Your task to perform on an android device: See recent photos Image 0: 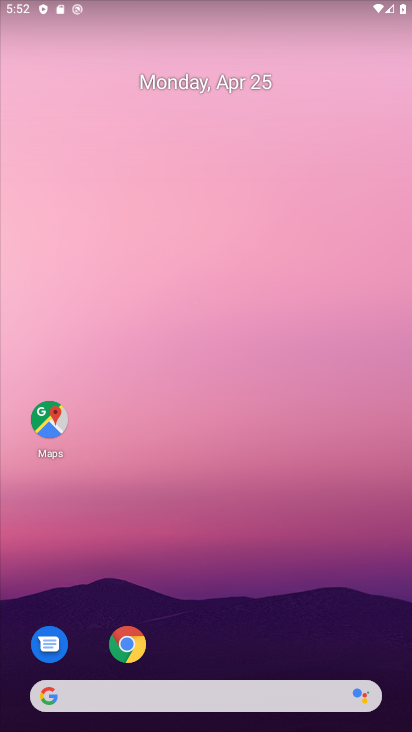
Step 0: drag from (295, 627) to (290, 86)
Your task to perform on an android device: See recent photos Image 1: 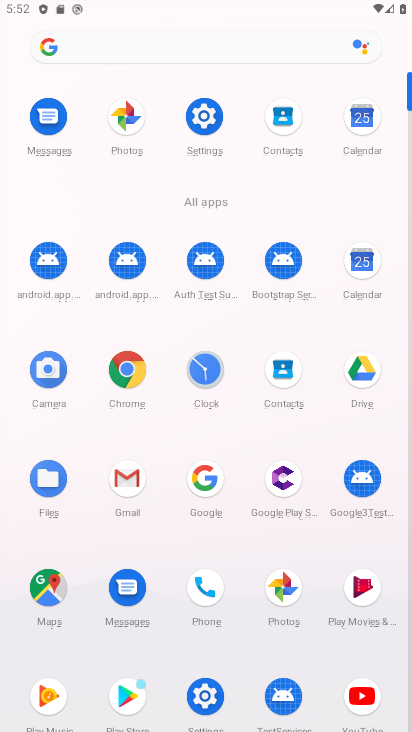
Step 1: click (286, 591)
Your task to perform on an android device: See recent photos Image 2: 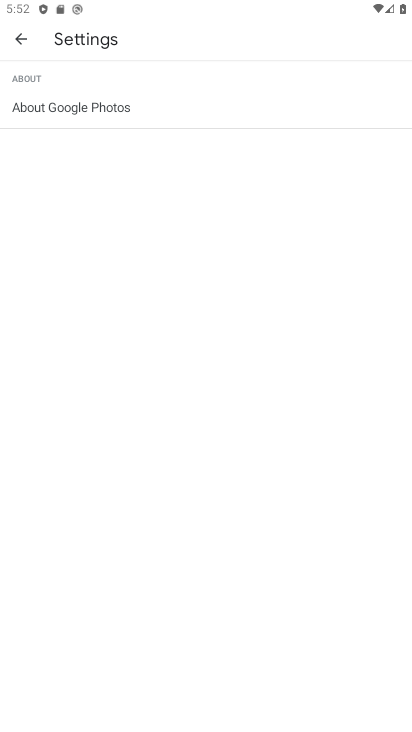
Step 2: click (23, 34)
Your task to perform on an android device: See recent photos Image 3: 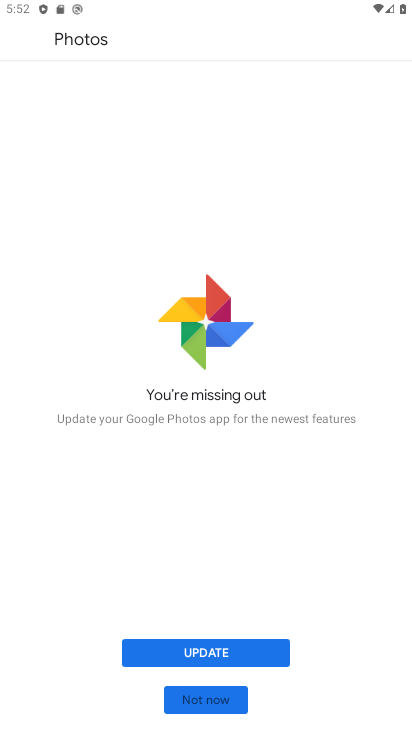
Step 3: click (219, 652)
Your task to perform on an android device: See recent photos Image 4: 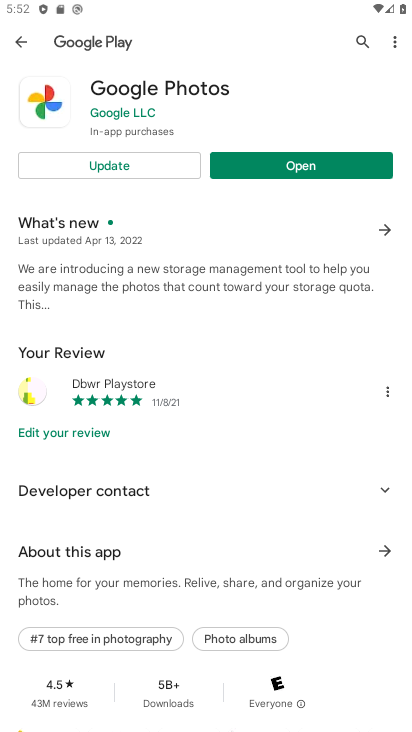
Step 4: click (175, 158)
Your task to perform on an android device: See recent photos Image 5: 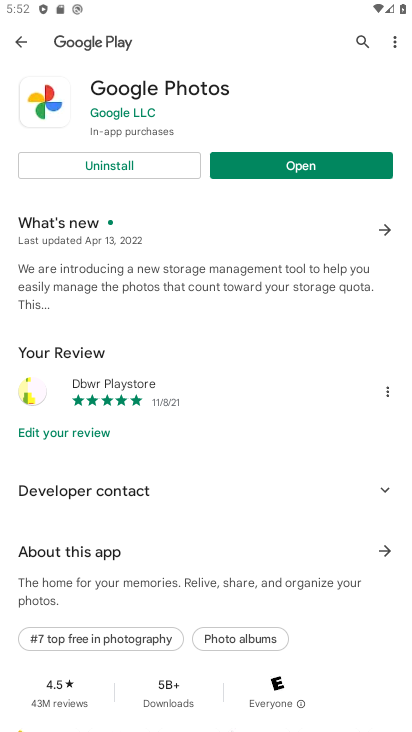
Step 5: click (357, 161)
Your task to perform on an android device: See recent photos Image 6: 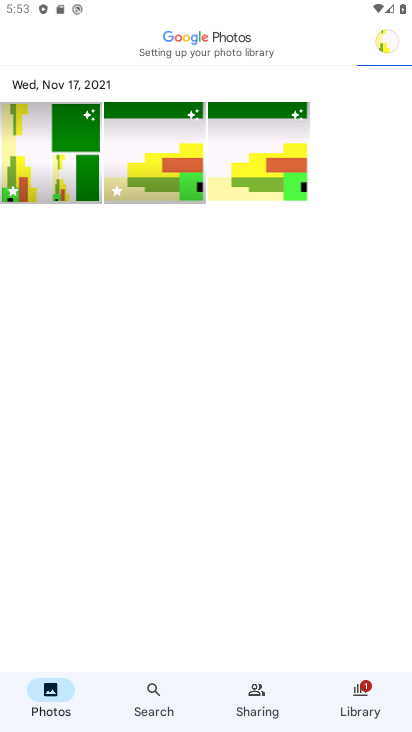
Step 6: click (148, 692)
Your task to perform on an android device: See recent photos Image 7: 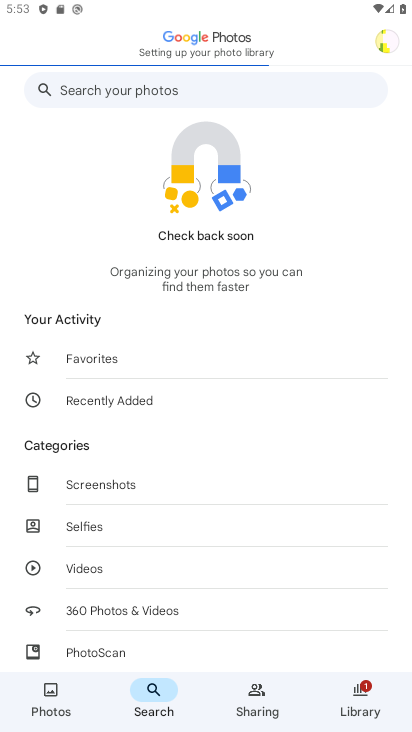
Step 7: click (158, 402)
Your task to perform on an android device: See recent photos Image 8: 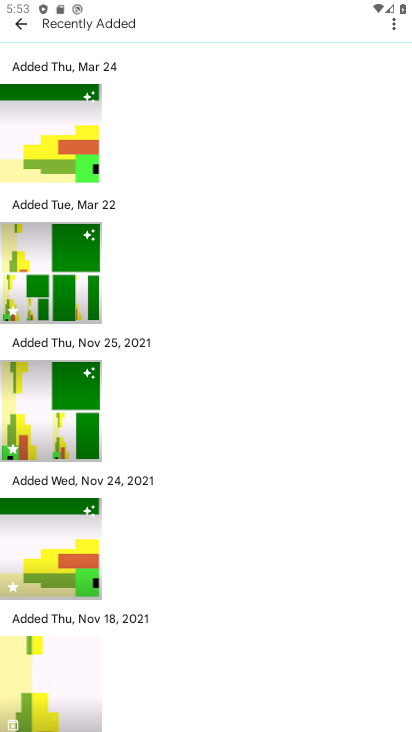
Step 8: task complete